Your task to perform on an android device: open app "Google Find My Device" (install if not already installed) Image 0: 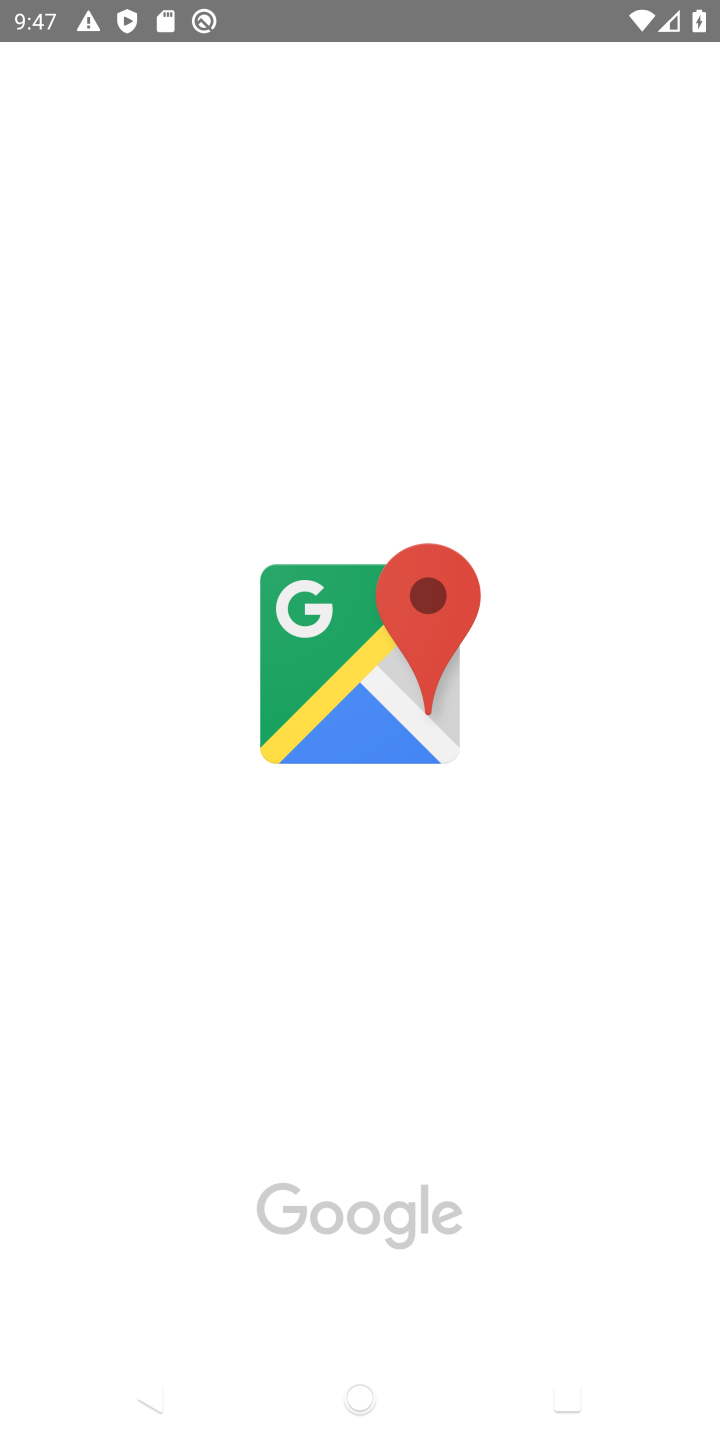
Step 0: press home button
Your task to perform on an android device: open app "Google Find My Device" (install if not already installed) Image 1: 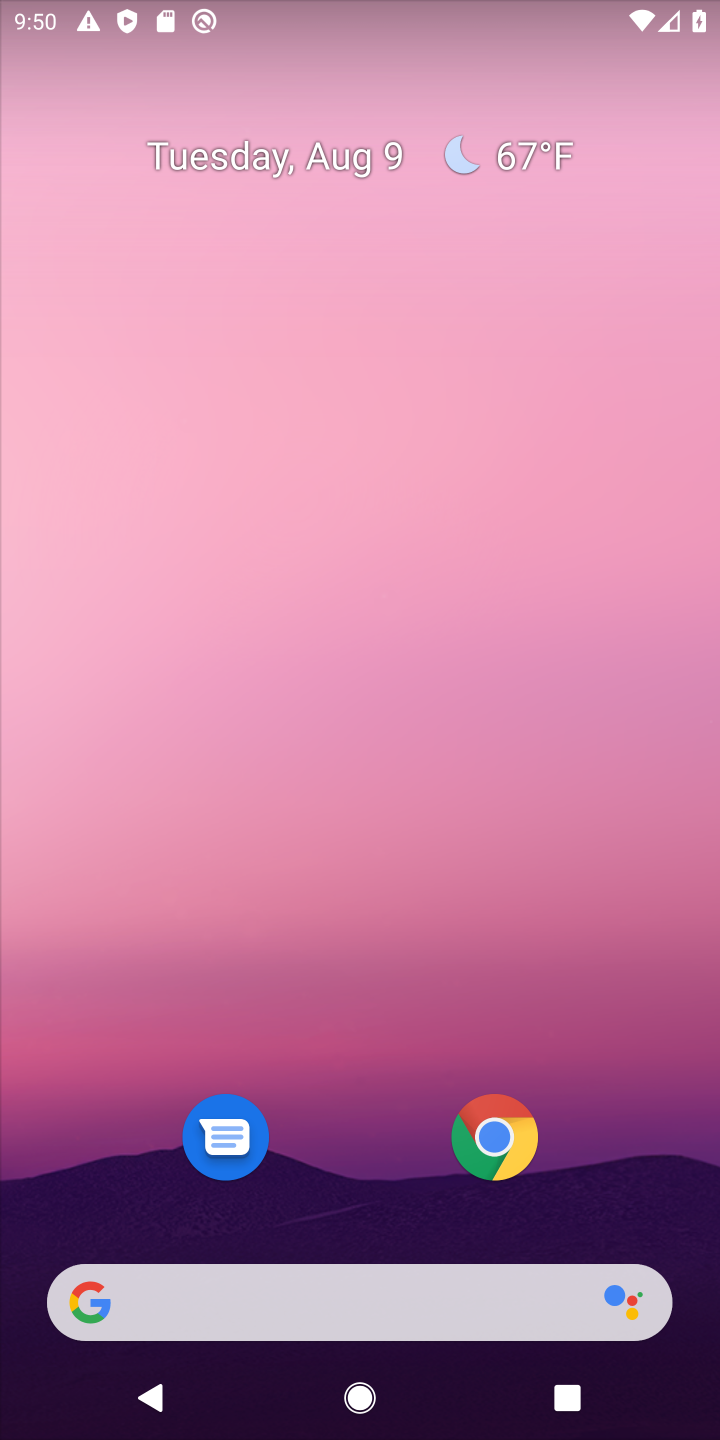
Step 1: drag from (628, 1069) to (303, 34)
Your task to perform on an android device: open app "Google Find My Device" (install if not already installed) Image 2: 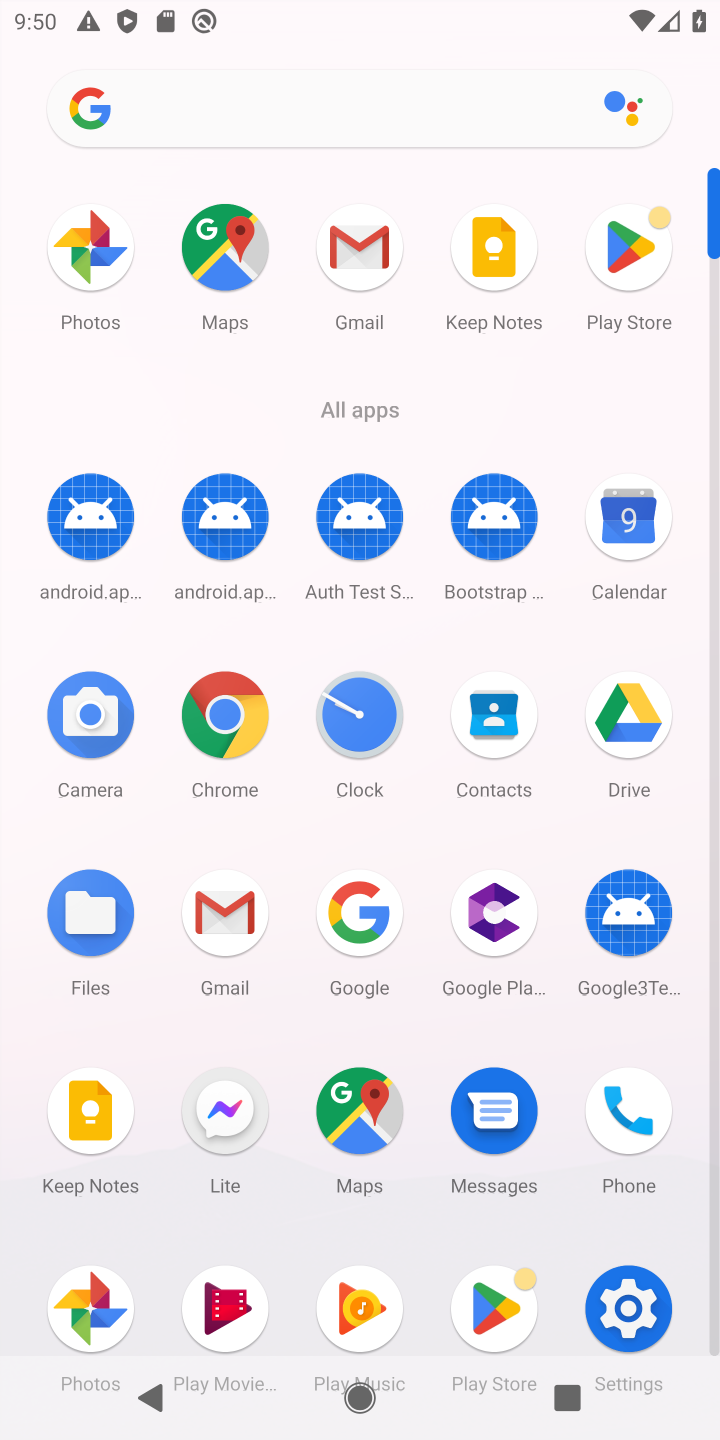
Step 2: click (618, 258)
Your task to perform on an android device: open app "Google Find My Device" (install if not already installed) Image 3: 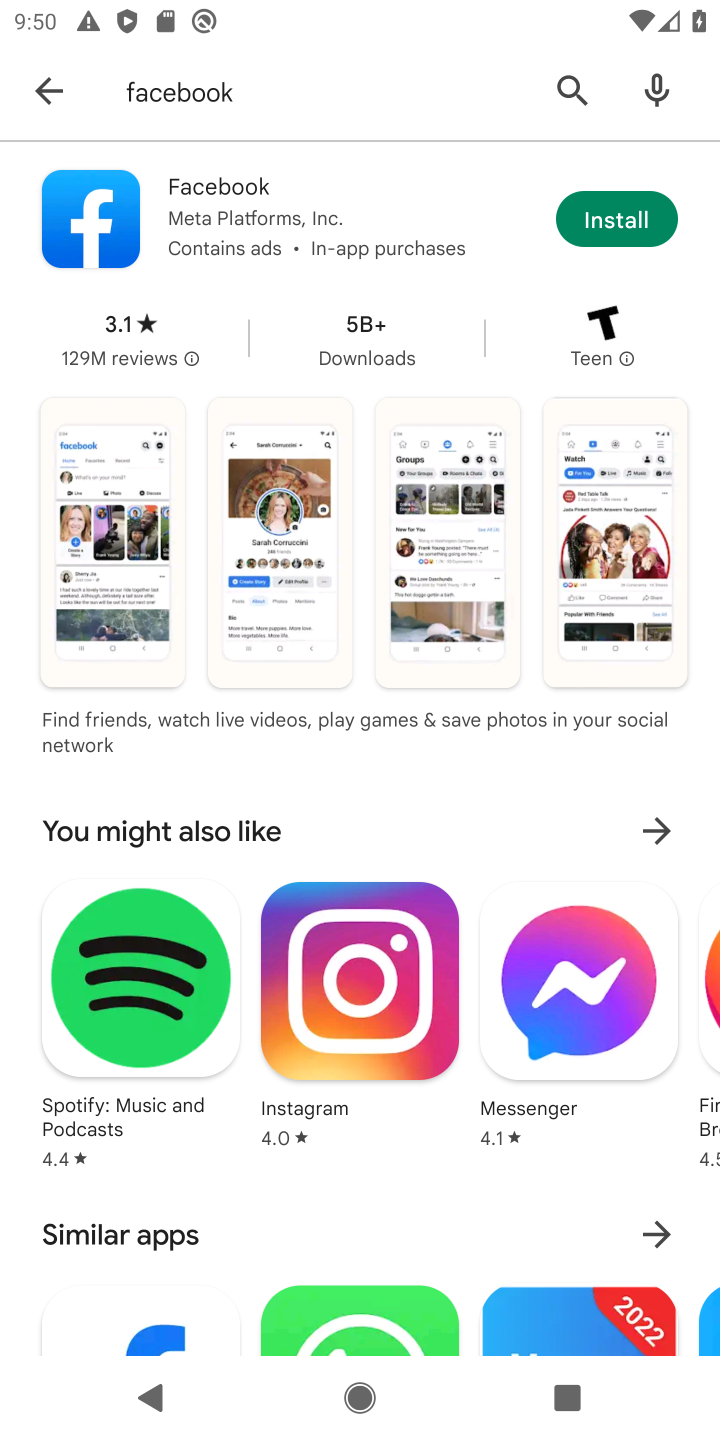
Step 3: press back button
Your task to perform on an android device: open app "Google Find My Device" (install if not already installed) Image 4: 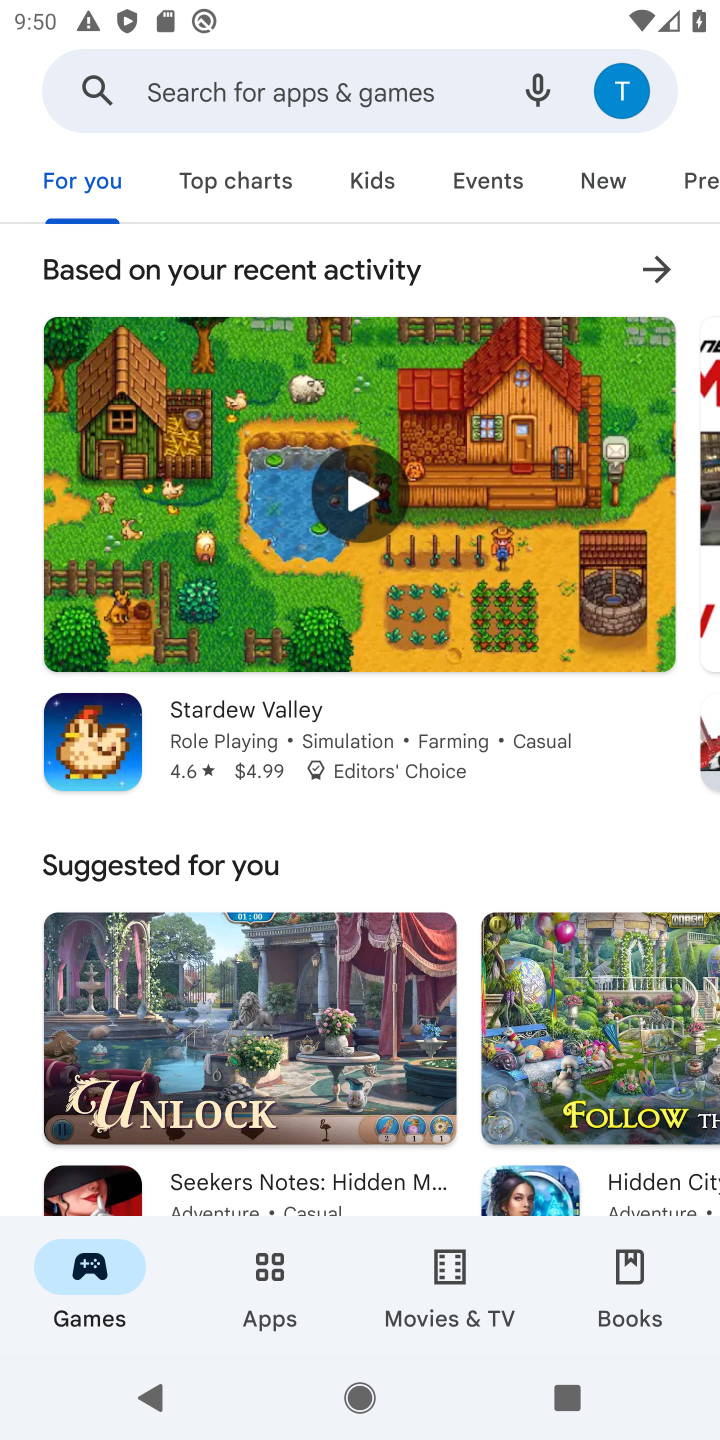
Step 4: type "Google Find My Device"
Your task to perform on an android device: open app "Google Find My Device" (install if not already installed) Image 5: 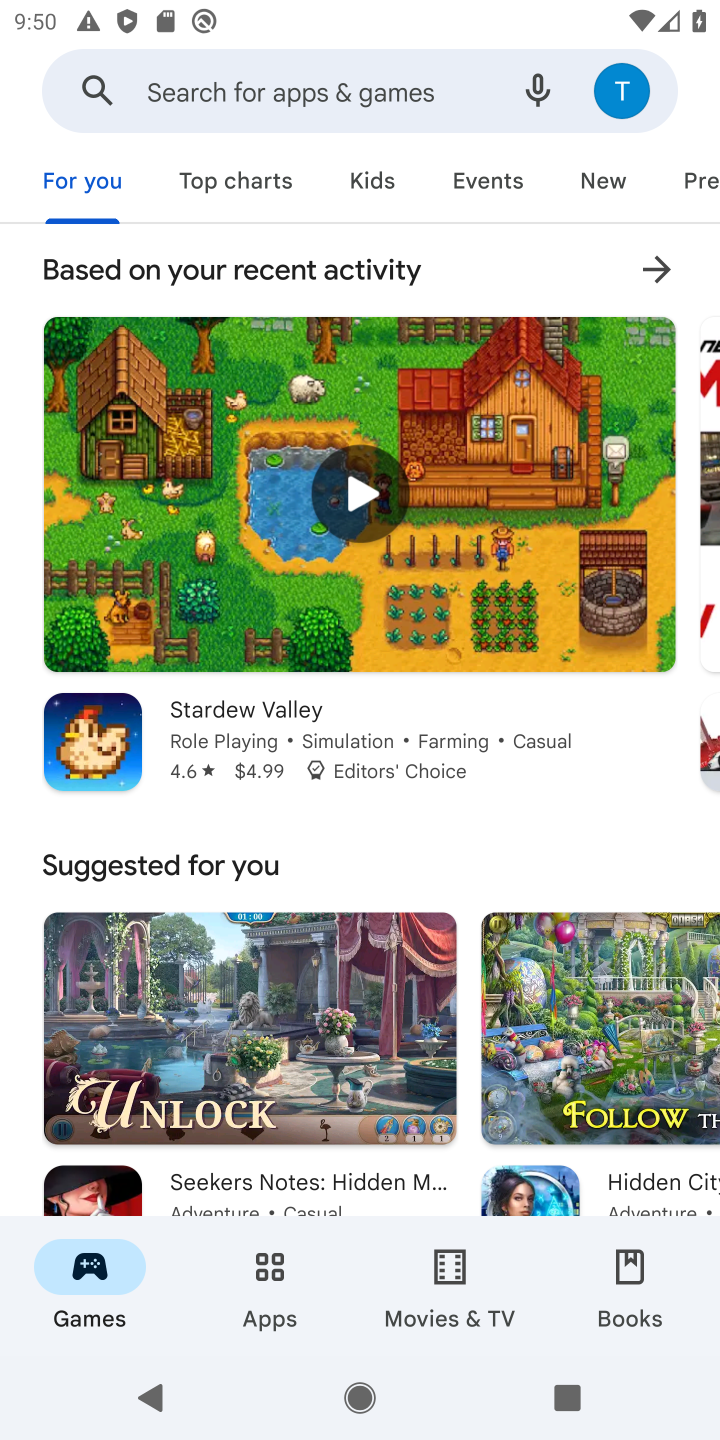
Step 5: click (309, 91)
Your task to perform on an android device: open app "Google Find My Device" (install if not already installed) Image 6: 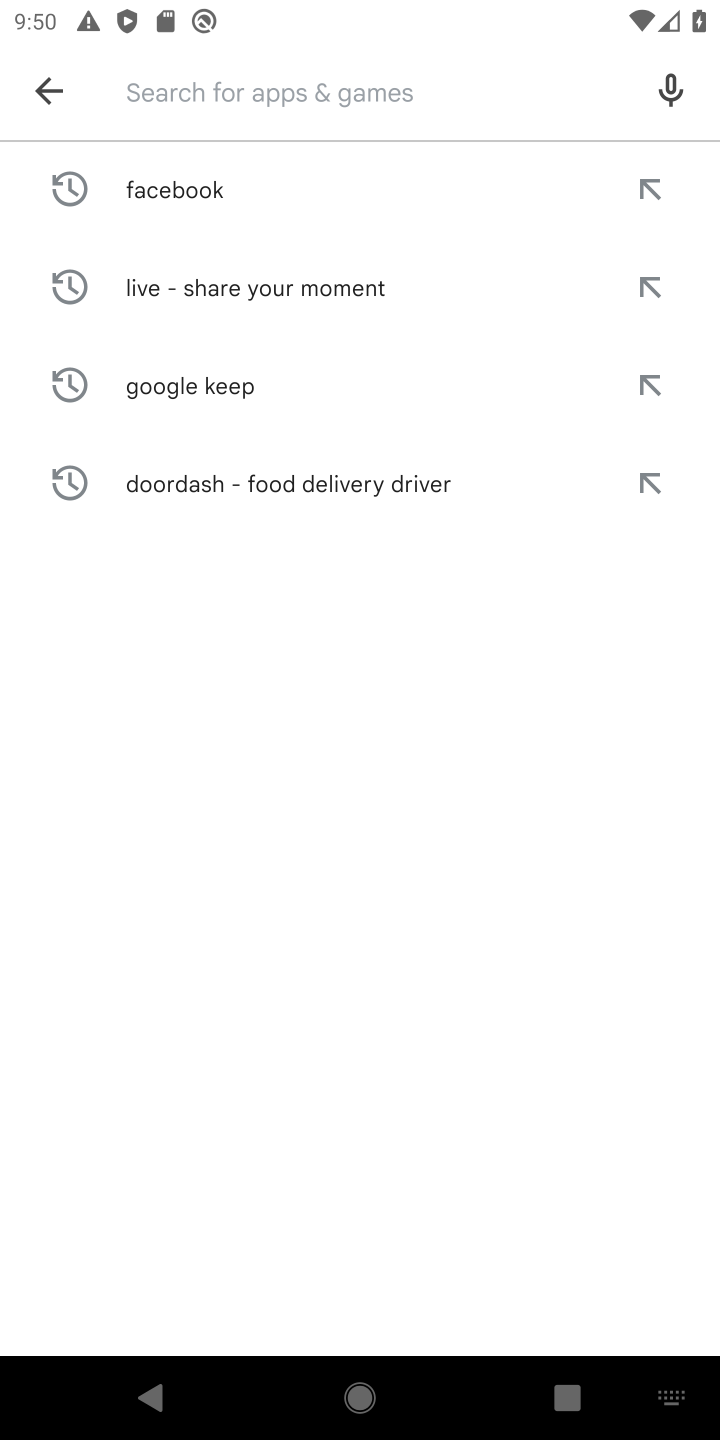
Step 6: type "Google Find My Device"
Your task to perform on an android device: open app "Google Find My Device" (install if not already installed) Image 7: 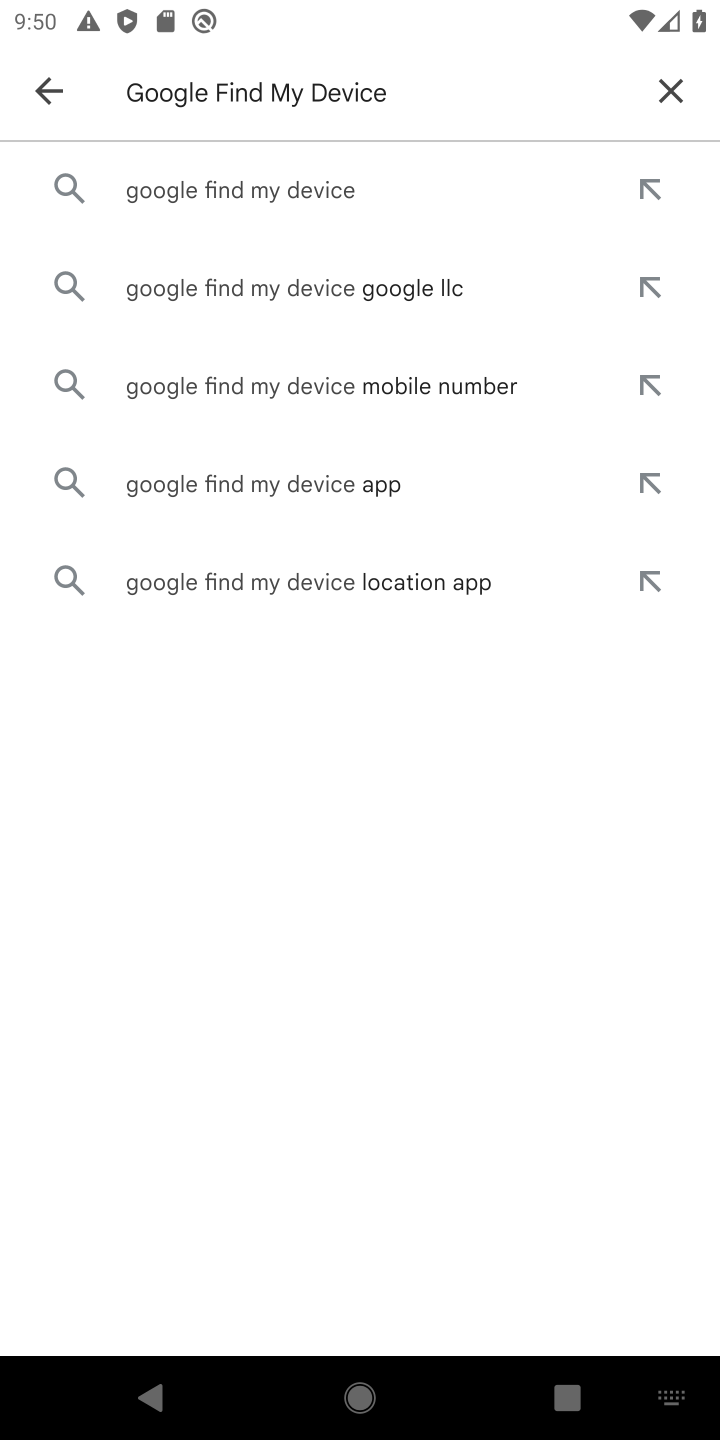
Step 7: click (224, 203)
Your task to perform on an android device: open app "Google Find My Device" (install if not already installed) Image 8: 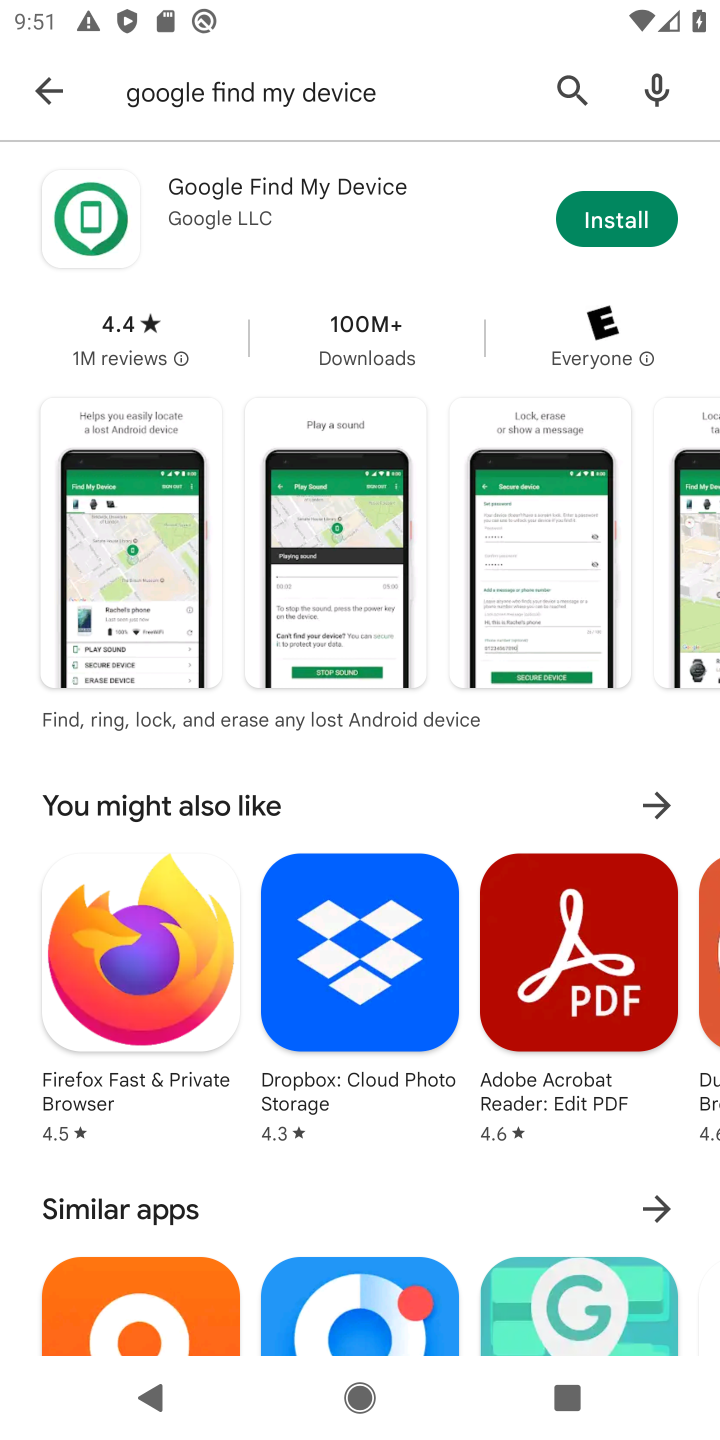
Step 8: task complete